Your task to perform on an android device: Go to wifi settings Image 0: 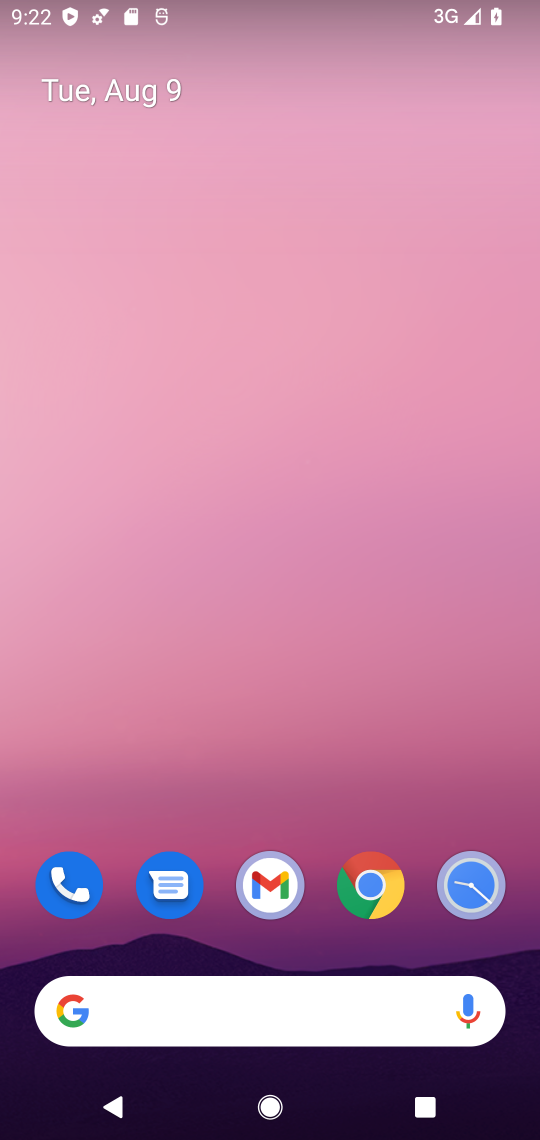
Step 0: press home button
Your task to perform on an android device: Go to wifi settings Image 1: 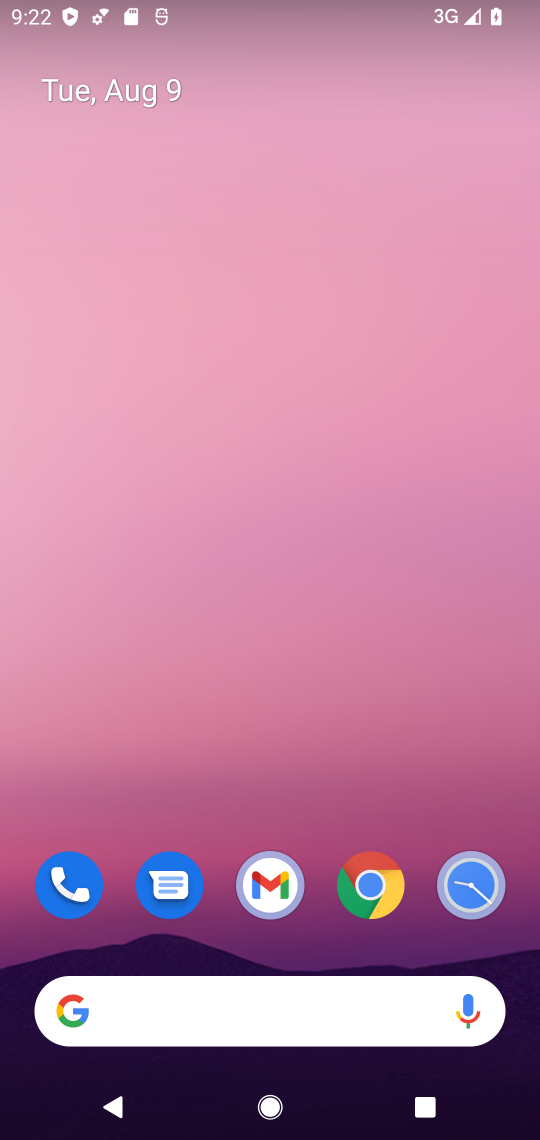
Step 1: drag from (310, 838) to (351, 136)
Your task to perform on an android device: Go to wifi settings Image 2: 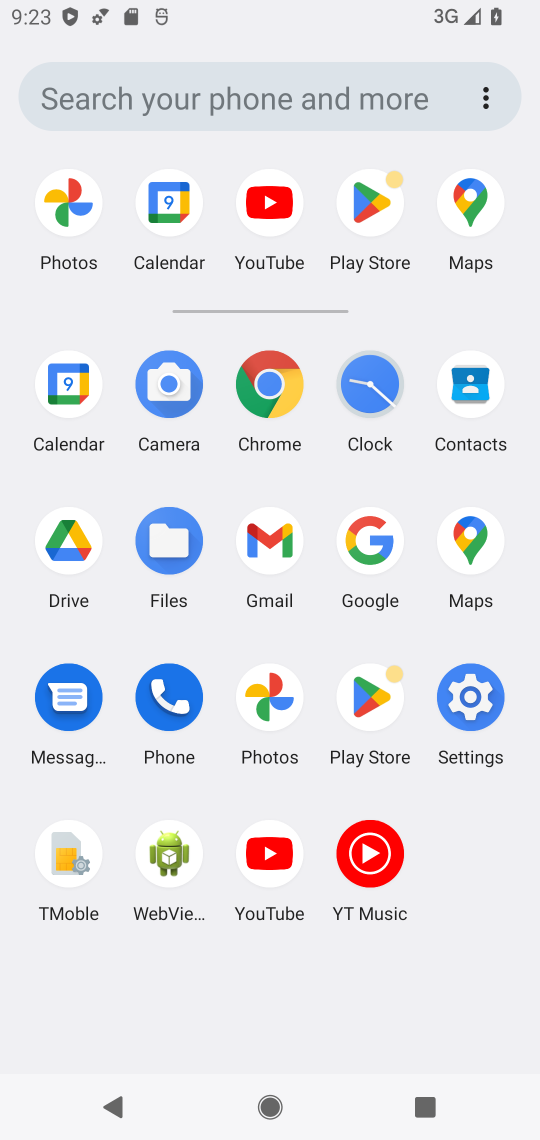
Step 2: click (471, 692)
Your task to perform on an android device: Go to wifi settings Image 3: 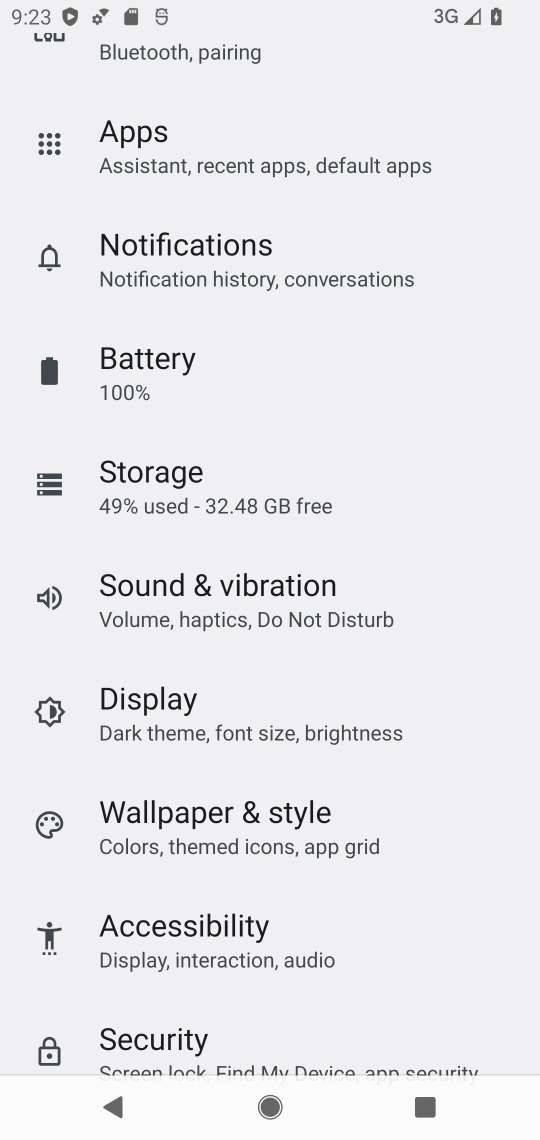
Step 3: drag from (221, 149) to (222, 826)
Your task to perform on an android device: Go to wifi settings Image 4: 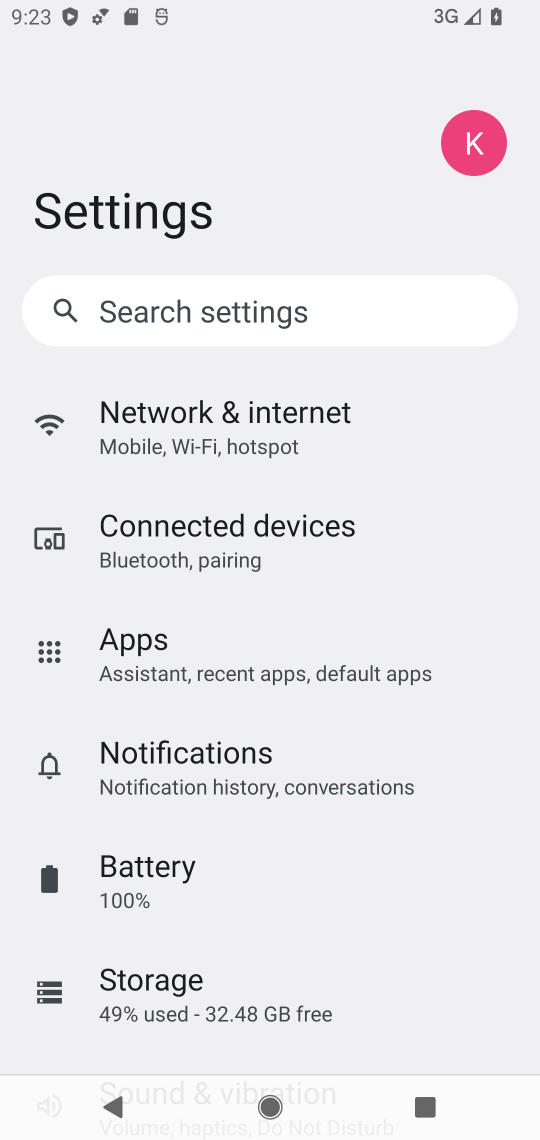
Step 4: click (244, 441)
Your task to perform on an android device: Go to wifi settings Image 5: 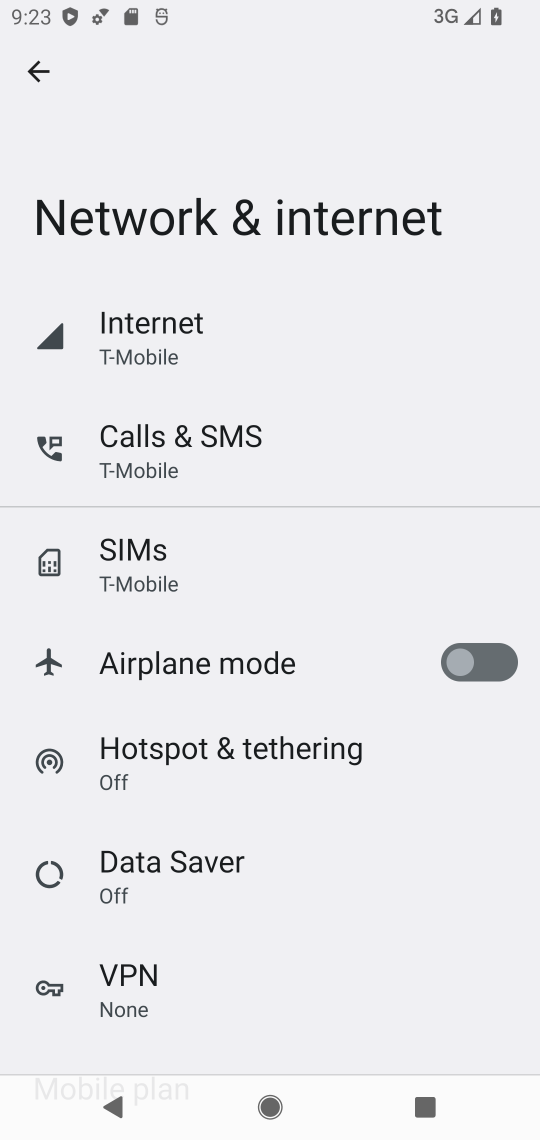
Step 5: click (209, 339)
Your task to perform on an android device: Go to wifi settings Image 6: 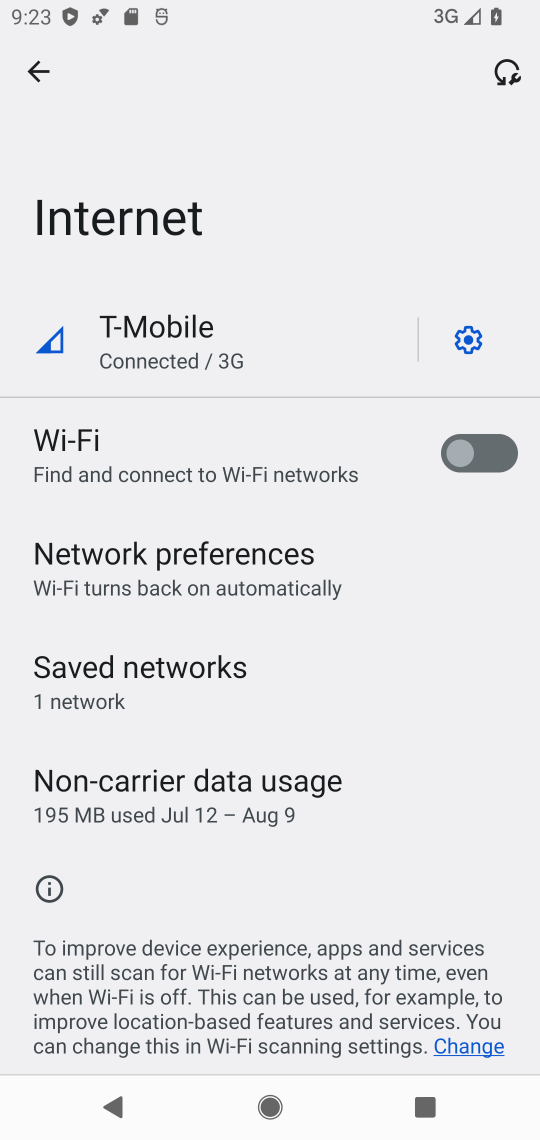
Step 6: click (256, 452)
Your task to perform on an android device: Go to wifi settings Image 7: 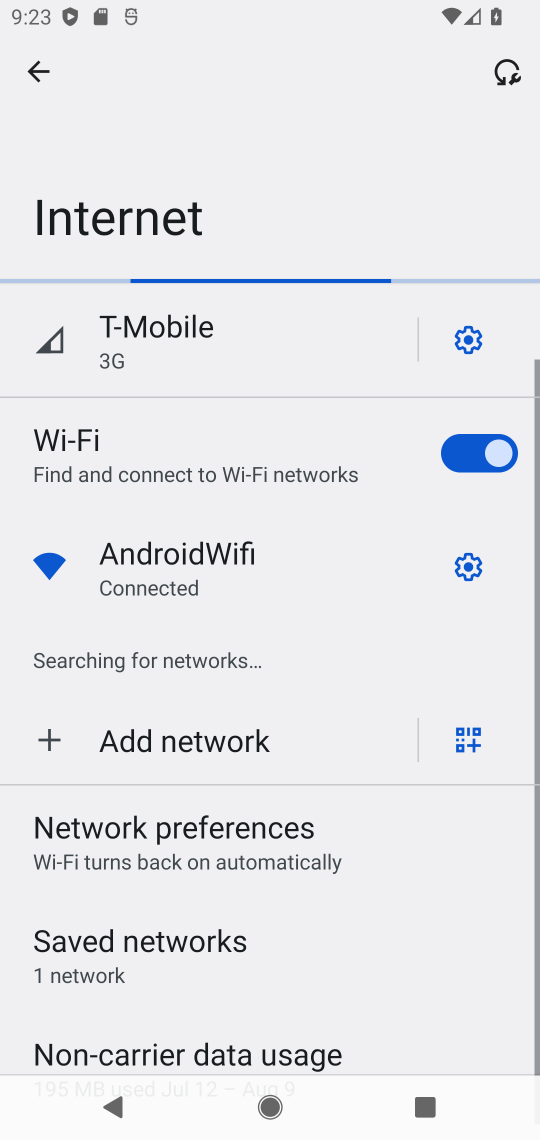
Step 7: task complete